Your task to perform on an android device: Open Google Image 0: 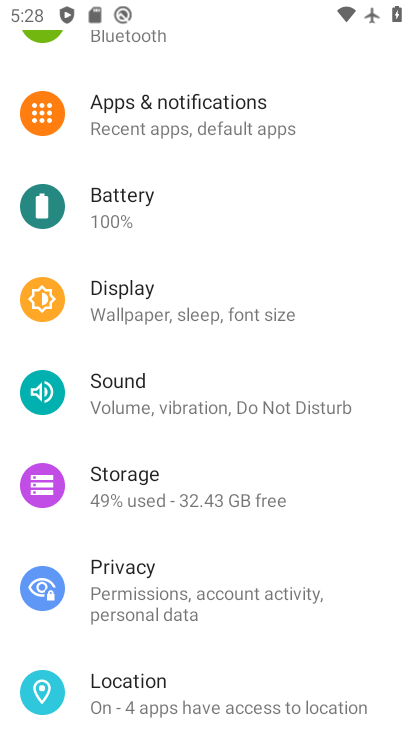
Step 0: press home button
Your task to perform on an android device: Open Google Image 1: 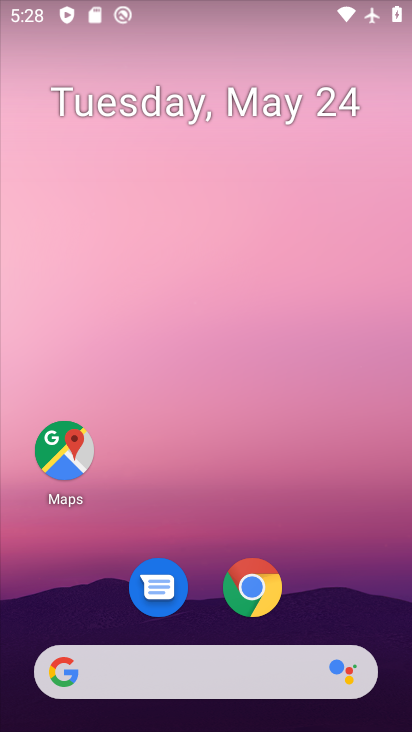
Step 1: drag from (337, 562) to (156, 9)
Your task to perform on an android device: Open Google Image 2: 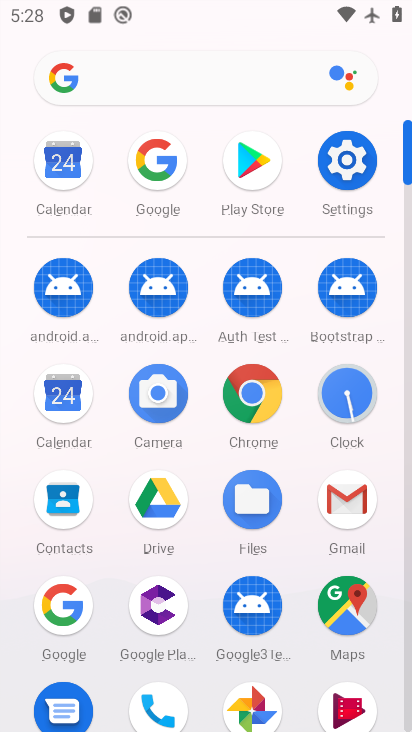
Step 2: click (67, 603)
Your task to perform on an android device: Open Google Image 3: 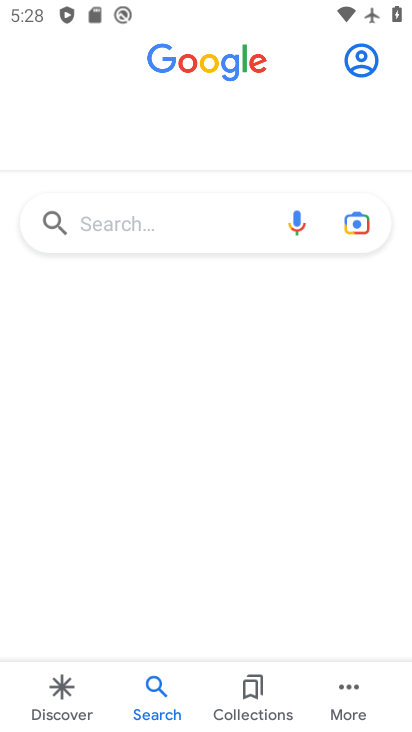
Step 3: task complete